Your task to perform on an android device: Search for pizza restaurants on Maps Image 0: 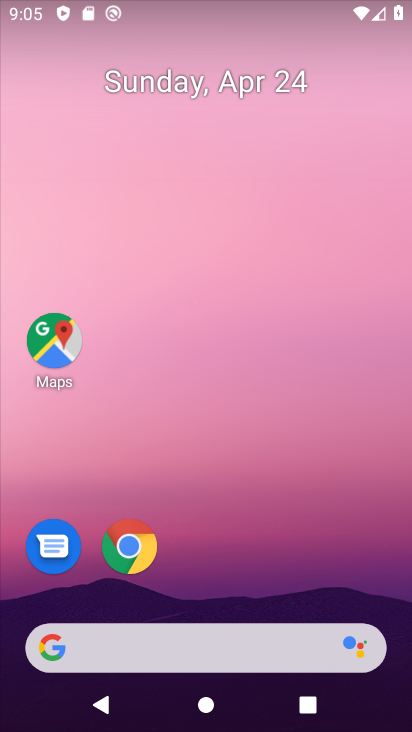
Step 0: drag from (273, 490) to (272, 276)
Your task to perform on an android device: Search for pizza restaurants on Maps Image 1: 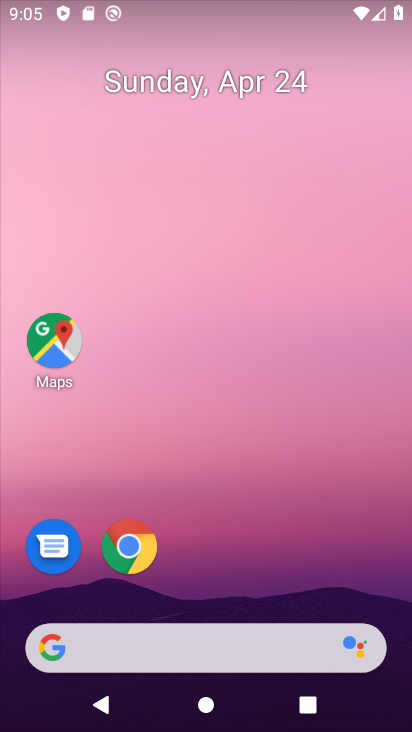
Step 1: drag from (263, 542) to (286, 250)
Your task to perform on an android device: Search for pizza restaurants on Maps Image 2: 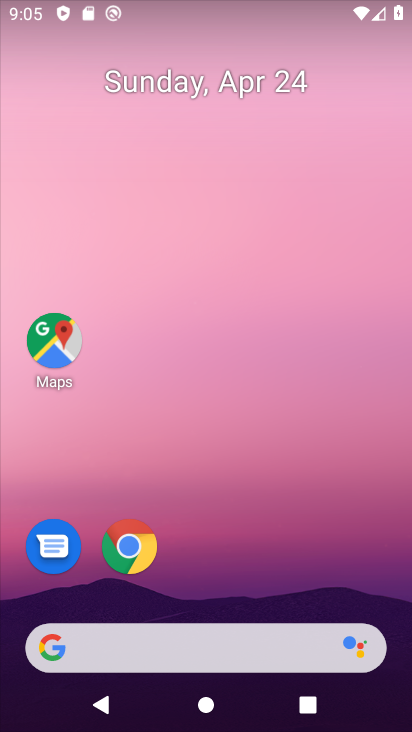
Step 2: drag from (241, 555) to (249, 140)
Your task to perform on an android device: Search for pizza restaurants on Maps Image 3: 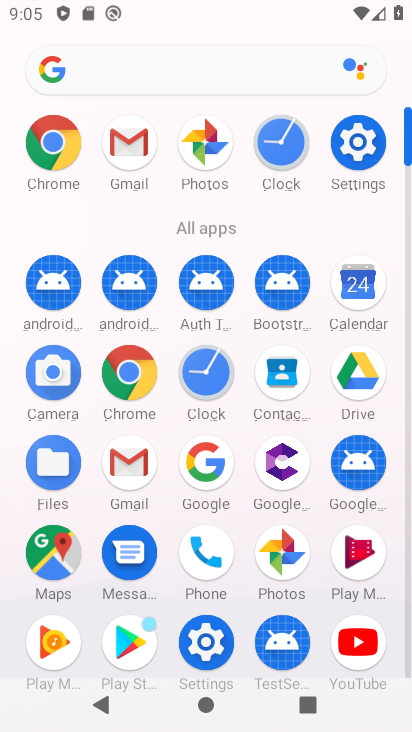
Step 3: click (46, 537)
Your task to perform on an android device: Search for pizza restaurants on Maps Image 4: 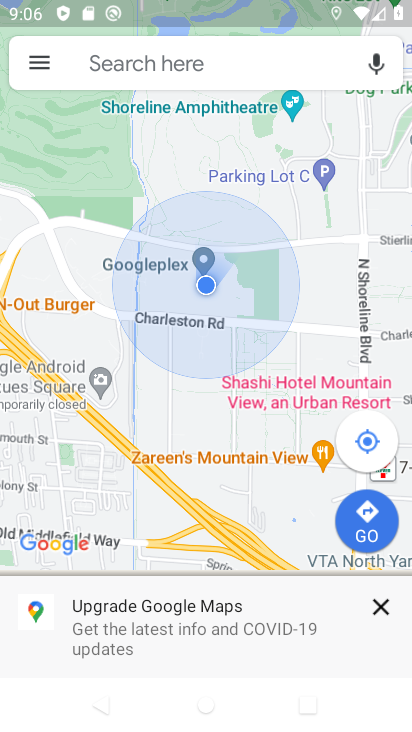
Step 4: click (238, 53)
Your task to perform on an android device: Search for pizza restaurants on Maps Image 5: 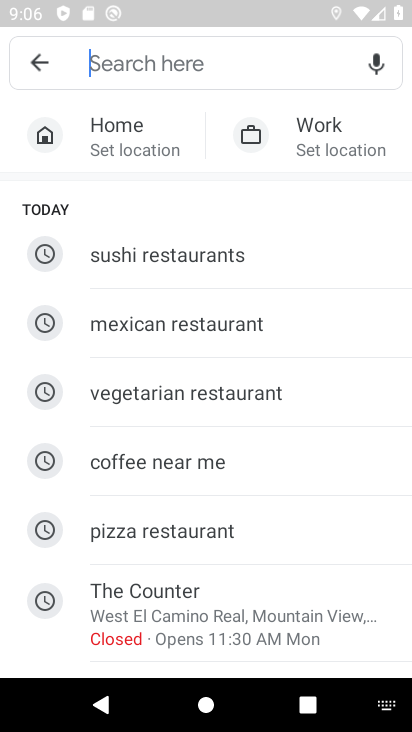
Step 5: type " pizza restaurants"
Your task to perform on an android device: Search for pizza restaurants on Maps Image 6: 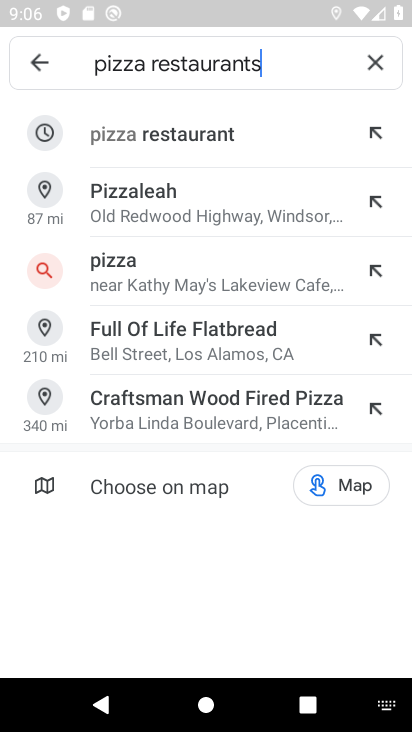
Step 6: click (214, 129)
Your task to perform on an android device: Search for pizza restaurants on Maps Image 7: 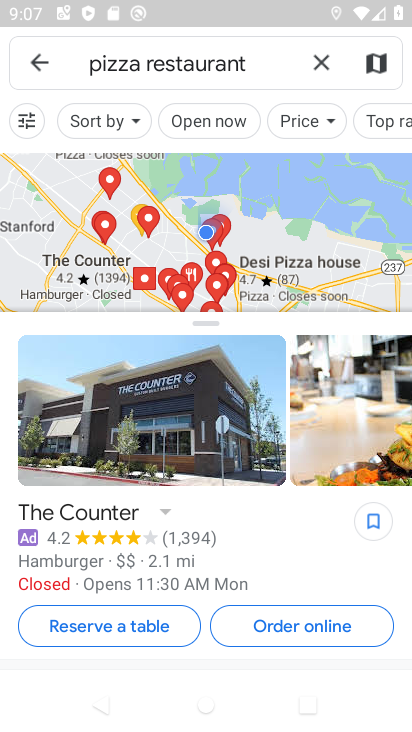
Step 7: task complete